Your task to perform on an android device: turn off wifi Image 0: 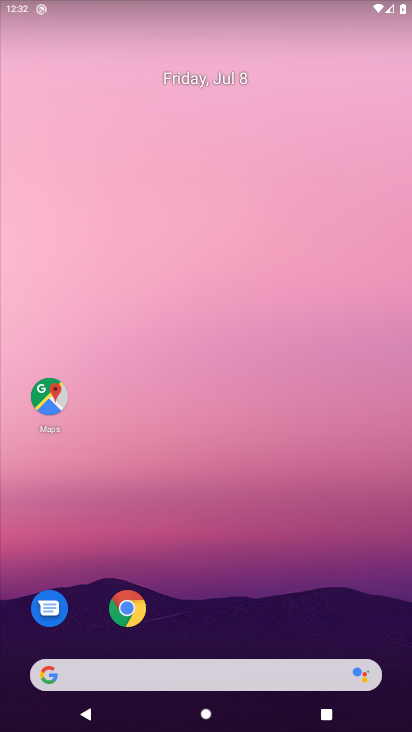
Step 0: press home button
Your task to perform on an android device: turn off wifi Image 1: 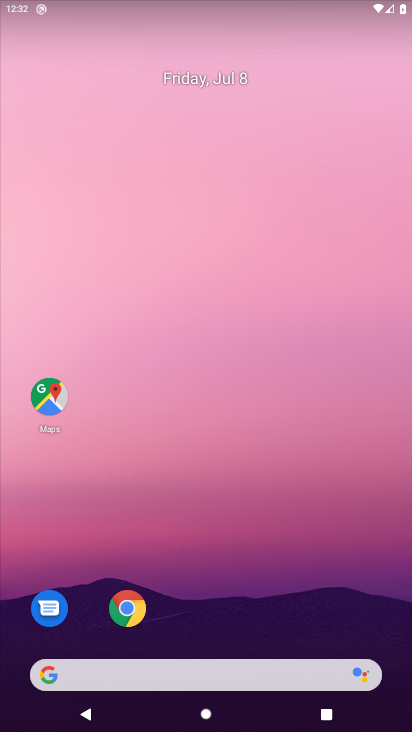
Step 1: drag from (299, 536) to (325, 113)
Your task to perform on an android device: turn off wifi Image 2: 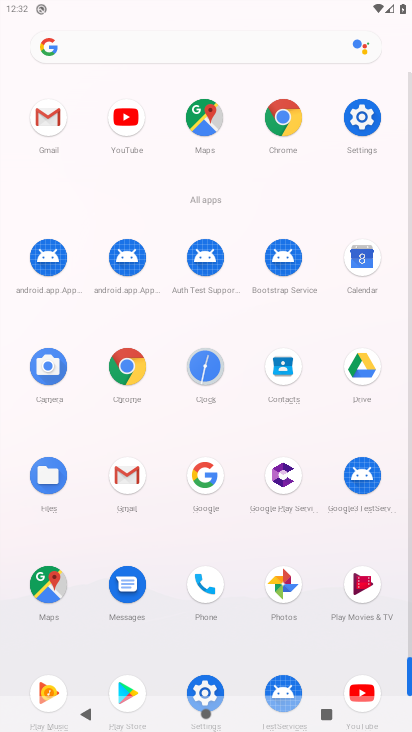
Step 2: drag from (348, 6) to (286, 342)
Your task to perform on an android device: turn off wifi Image 3: 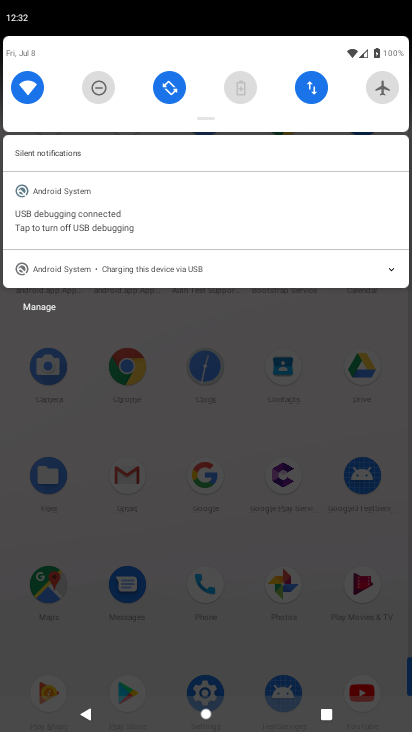
Step 3: drag from (204, 124) to (185, 300)
Your task to perform on an android device: turn off wifi Image 4: 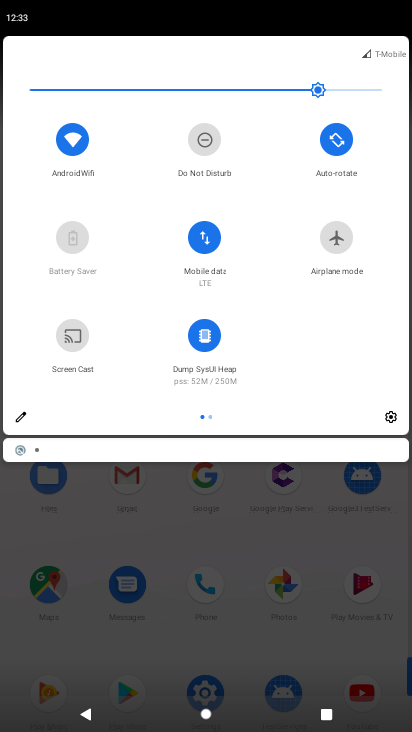
Step 4: click (85, 141)
Your task to perform on an android device: turn off wifi Image 5: 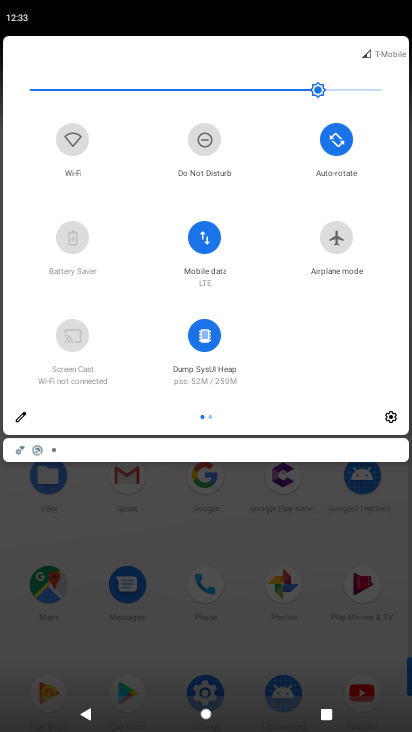
Step 5: task complete